Your task to perform on an android device: Is it going to rain this weekend? Image 0: 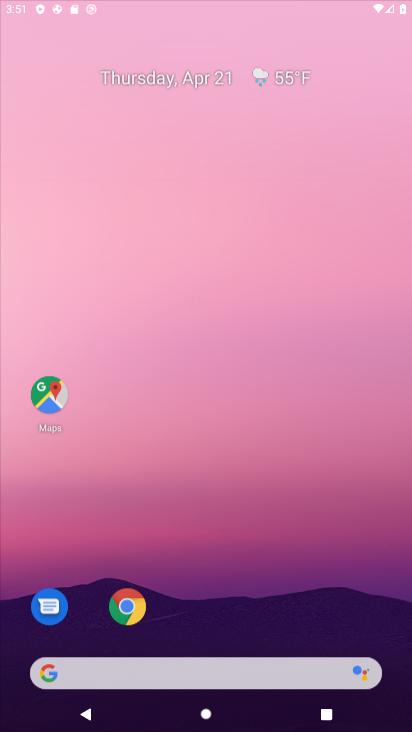
Step 0: drag from (190, 588) to (186, 350)
Your task to perform on an android device: Is it going to rain this weekend? Image 1: 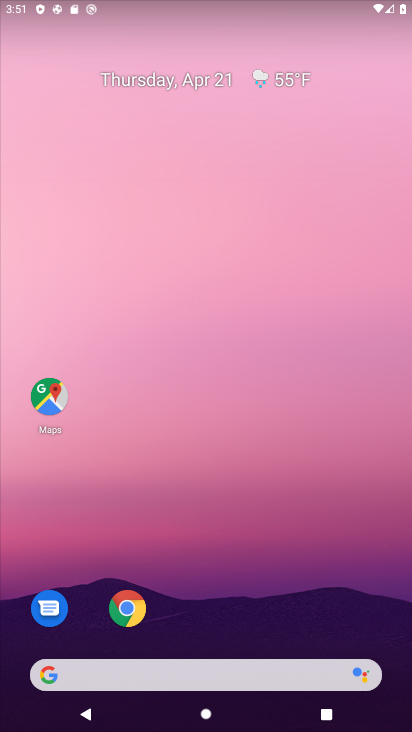
Step 1: drag from (201, 532) to (208, 210)
Your task to perform on an android device: Is it going to rain this weekend? Image 2: 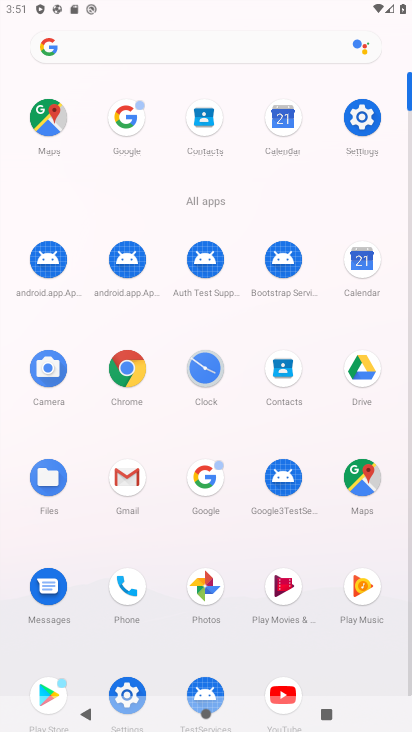
Step 2: click (196, 486)
Your task to perform on an android device: Is it going to rain this weekend? Image 3: 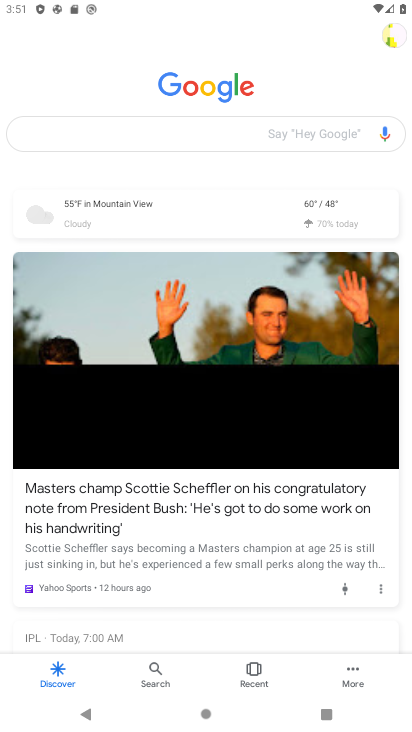
Step 3: click (258, 129)
Your task to perform on an android device: Is it going to rain this weekend? Image 4: 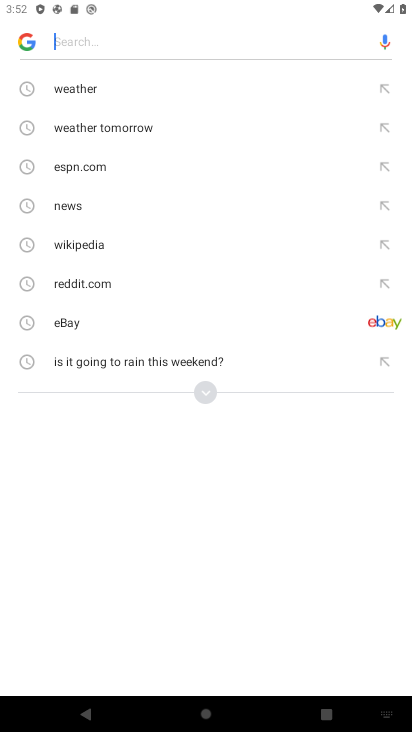
Step 4: type "saturday weather"
Your task to perform on an android device: Is it going to rain this weekend? Image 5: 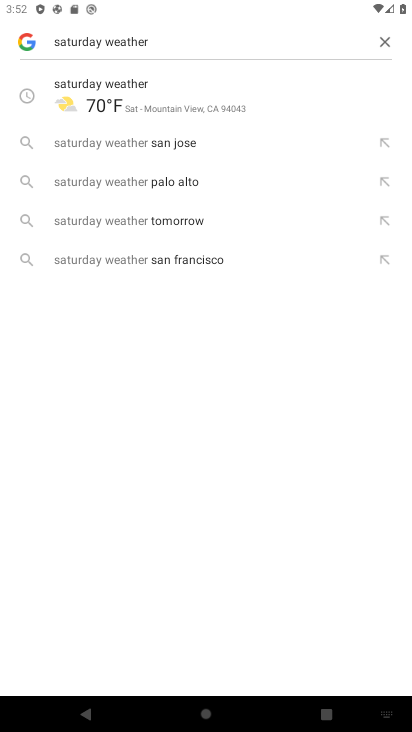
Step 5: click (342, 111)
Your task to perform on an android device: Is it going to rain this weekend? Image 6: 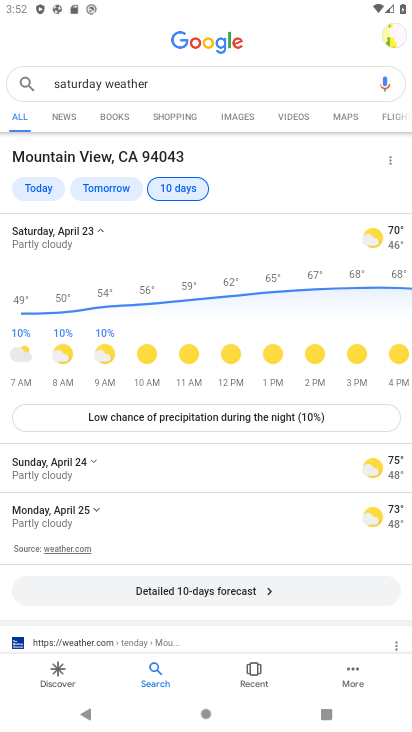
Step 6: task complete